Your task to perform on an android device: turn off wifi Image 0: 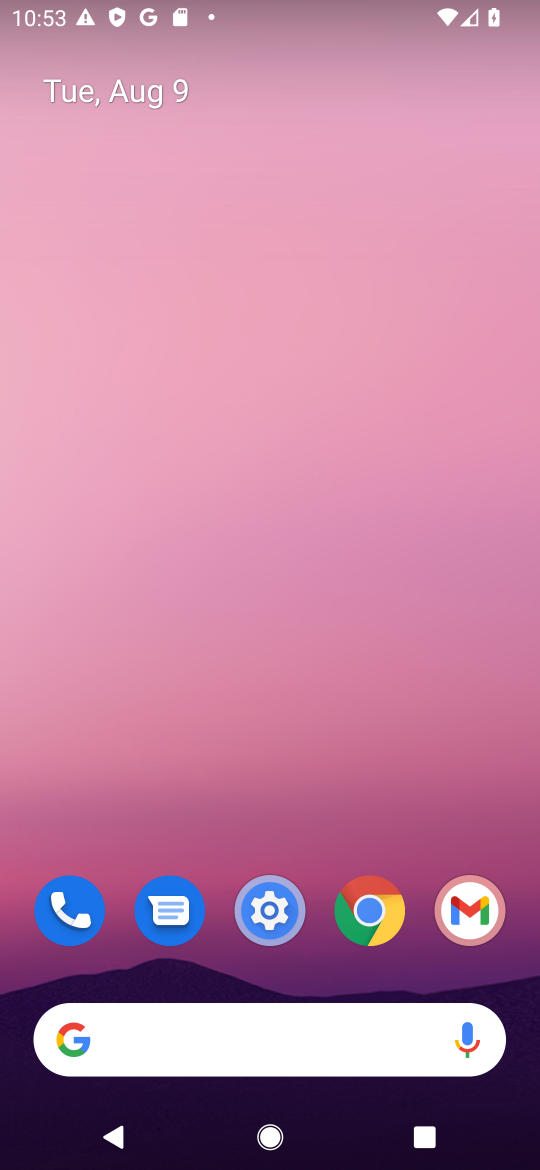
Step 0: drag from (334, 3) to (302, 836)
Your task to perform on an android device: turn off wifi Image 1: 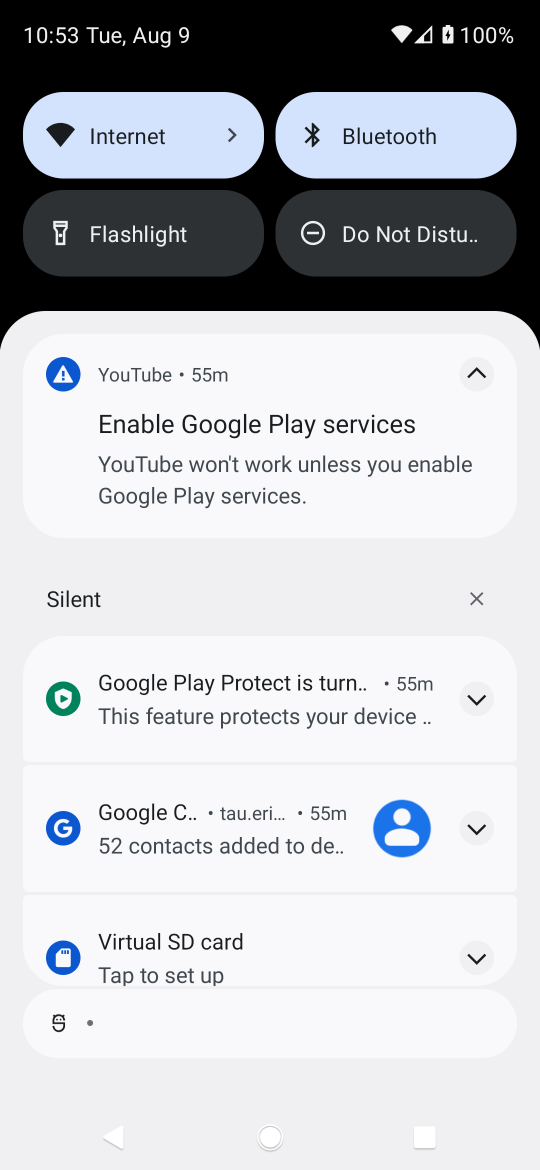
Step 1: click (187, 126)
Your task to perform on an android device: turn off wifi Image 2: 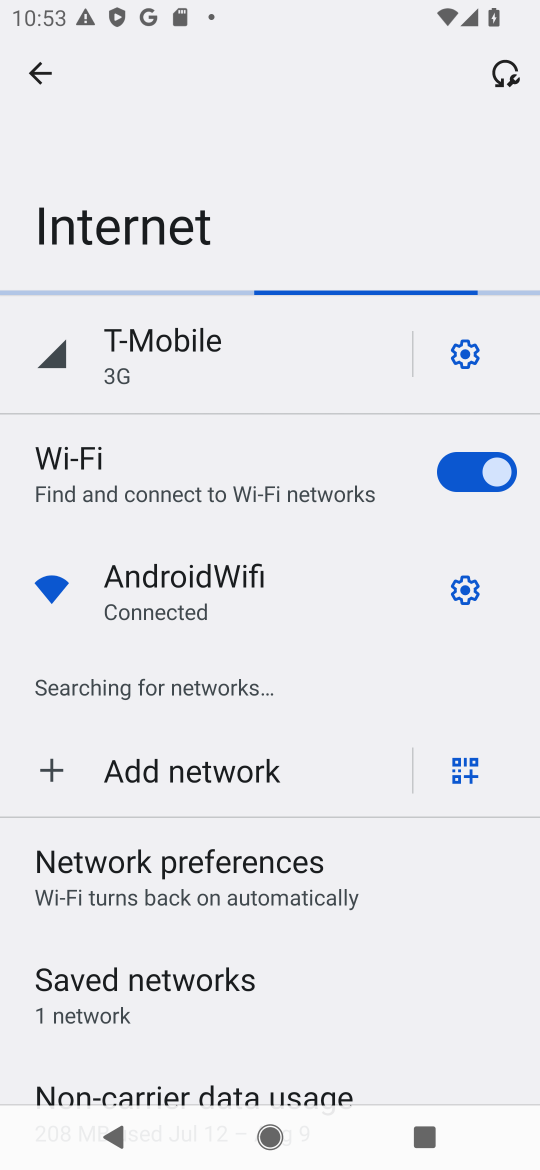
Step 2: click (502, 487)
Your task to perform on an android device: turn off wifi Image 3: 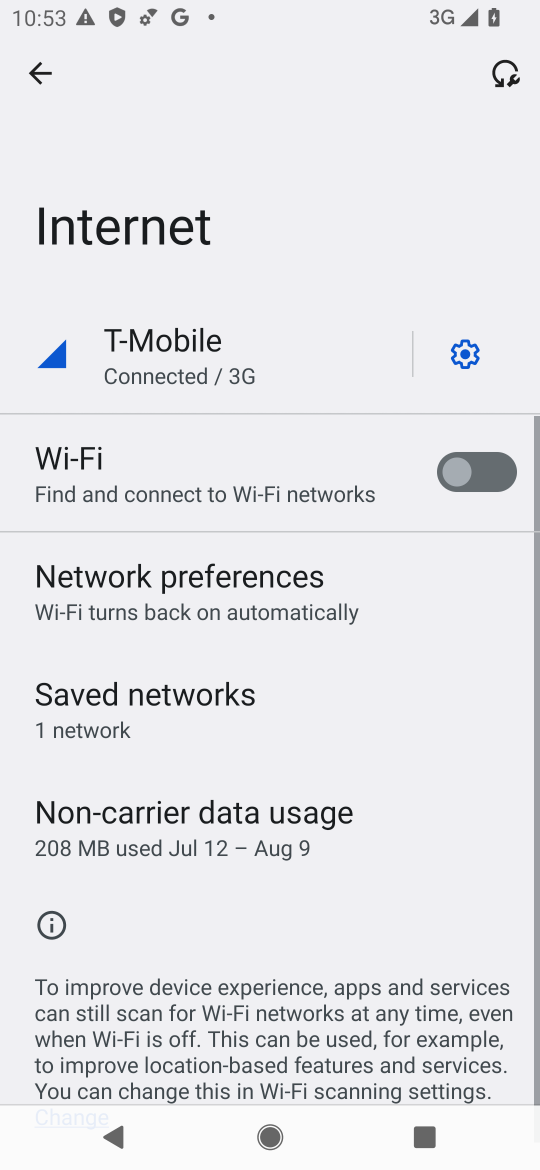
Step 3: task complete